Your task to perform on an android device: Show me popular games on the Play Store Image 0: 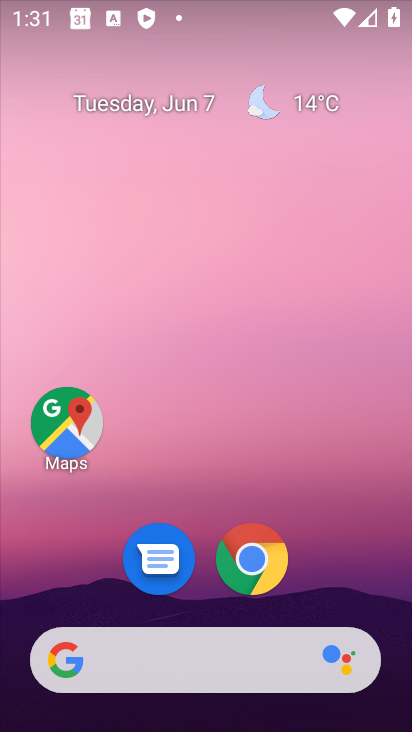
Step 0: drag from (79, 439) to (243, 137)
Your task to perform on an android device: Show me popular games on the Play Store Image 1: 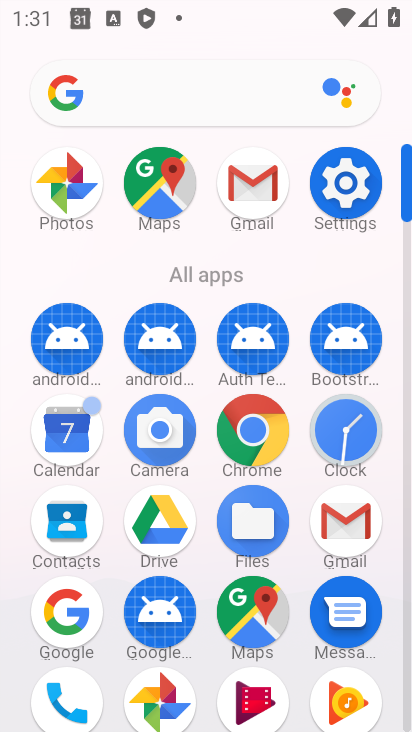
Step 1: drag from (68, 383) to (175, 167)
Your task to perform on an android device: Show me popular games on the Play Store Image 2: 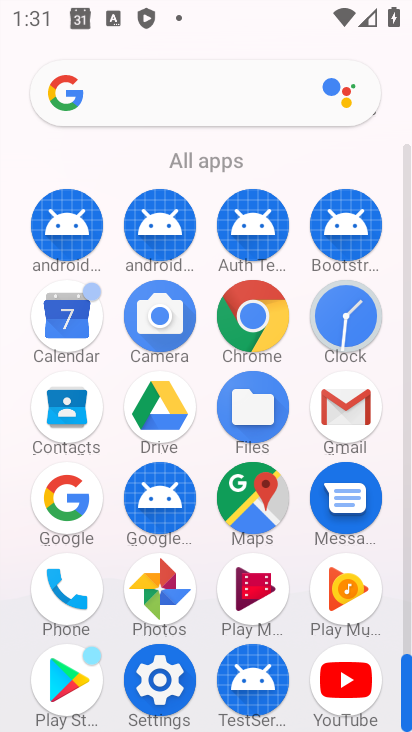
Step 2: click (62, 666)
Your task to perform on an android device: Show me popular games on the Play Store Image 3: 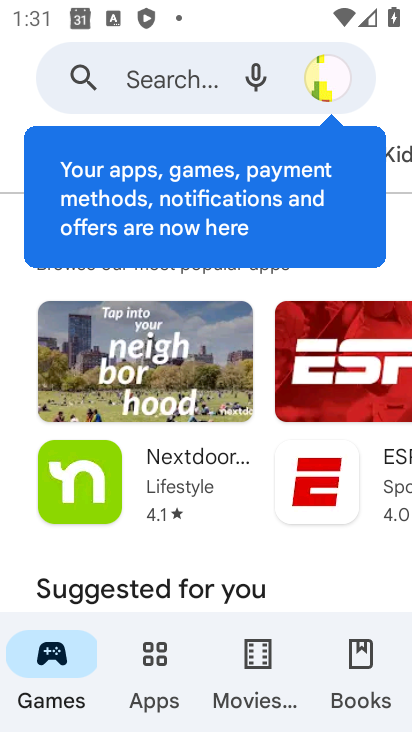
Step 3: task complete